Your task to perform on an android device: Open calendar and show me the first week of next month Image 0: 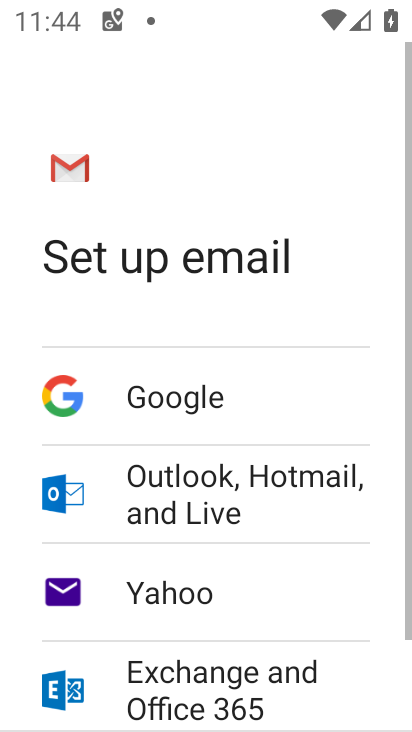
Step 0: press home button
Your task to perform on an android device: Open calendar and show me the first week of next month Image 1: 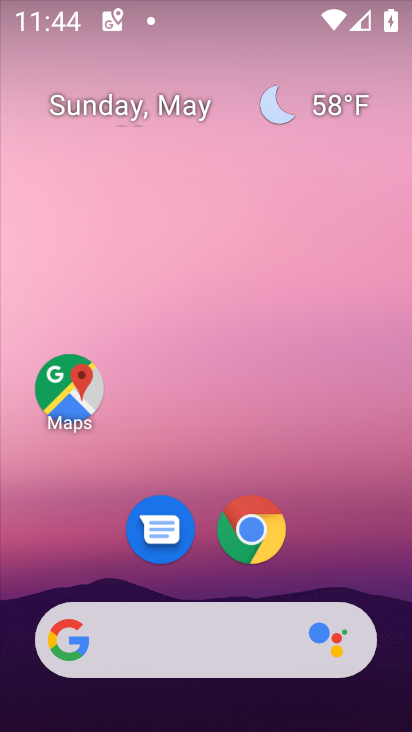
Step 1: drag from (181, 628) to (140, 130)
Your task to perform on an android device: Open calendar and show me the first week of next month Image 2: 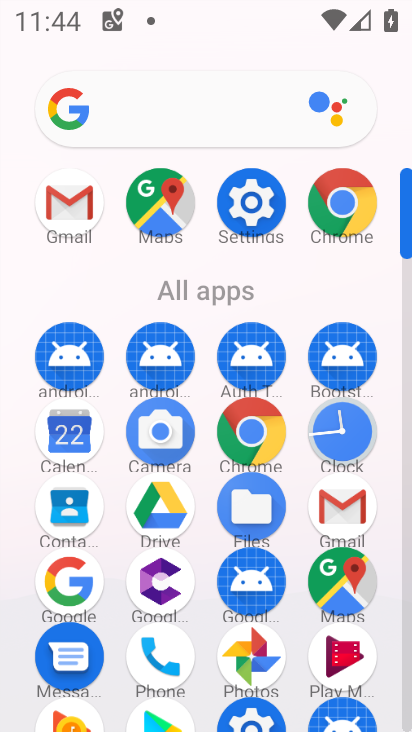
Step 2: click (70, 426)
Your task to perform on an android device: Open calendar and show me the first week of next month Image 3: 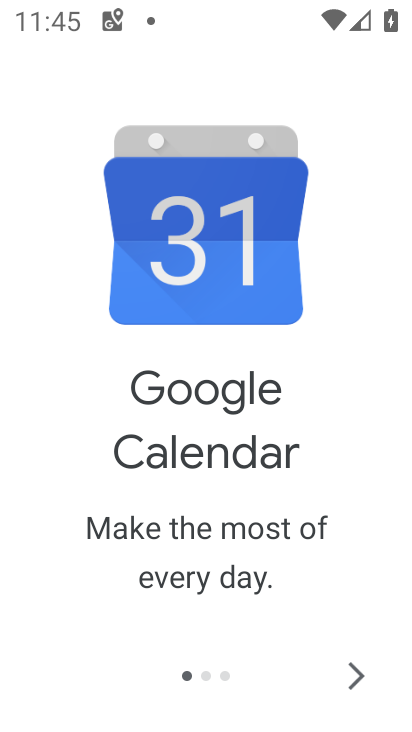
Step 3: click (366, 691)
Your task to perform on an android device: Open calendar and show me the first week of next month Image 4: 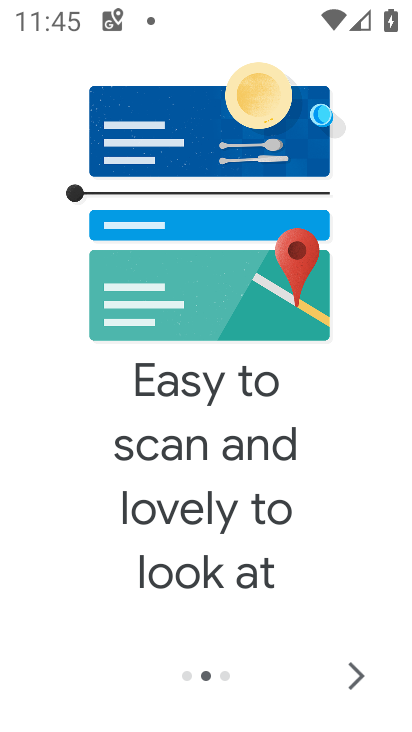
Step 4: click (346, 674)
Your task to perform on an android device: Open calendar and show me the first week of next month Image 5: 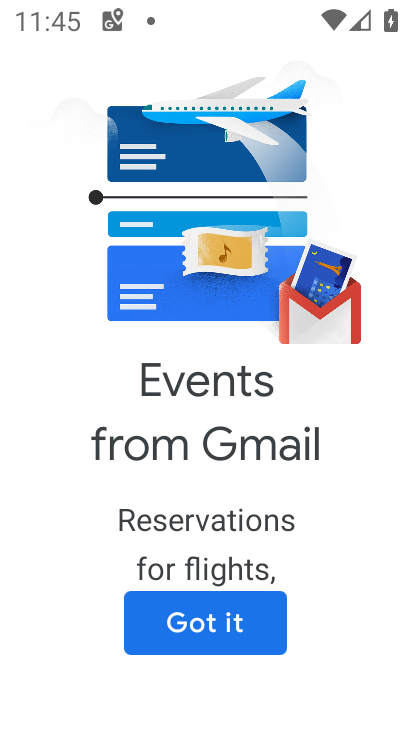
Step 5: click (253, 648)
Your task to perform on an android device: Open calendar and show me the first week of next month Image 6: 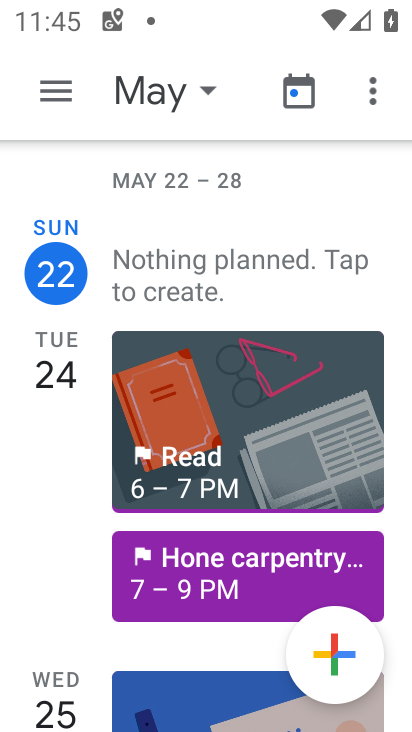
Step 6: click (56, 100)
Your task to perform on an android device: Open calendar and show me the first week of next month Image 7: 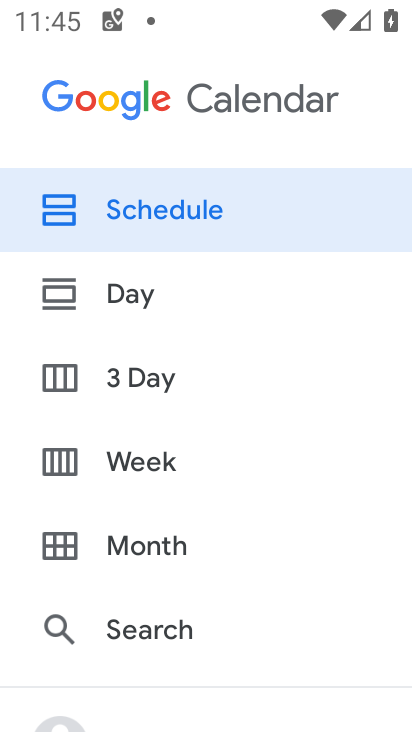
Step 7: click (153, 541)
Your task to perform on an android device: Open calendar and show me the first week of next month Image 8: 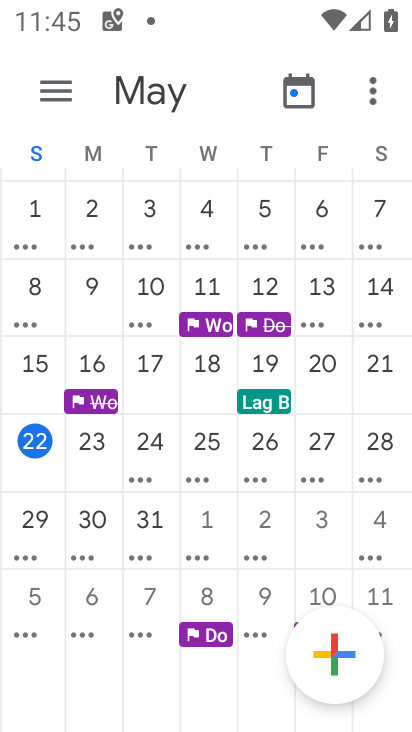
Step 8: task complete